Your task to perform on an android device: set an alarm Image 0: 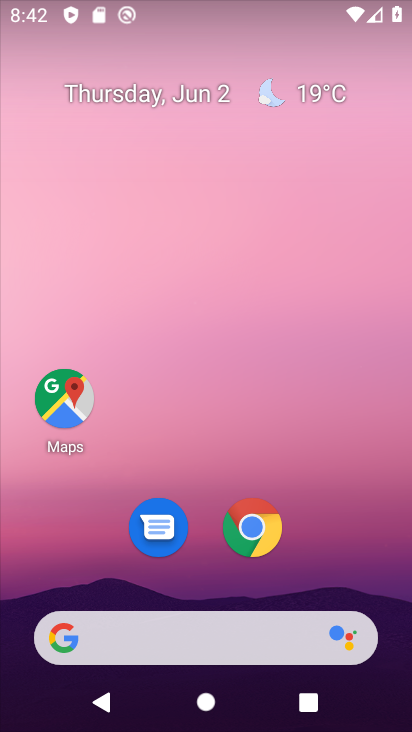
Step 0: drag from (375, 604) to (278, 110)
Your task to perform on an android device: set an alarm Image 1: 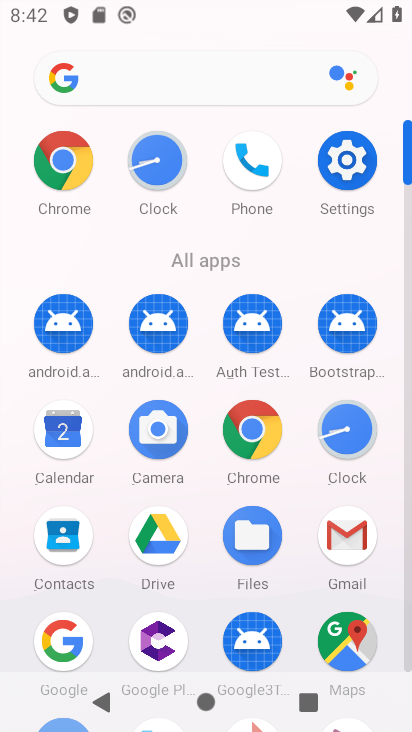
Step 1: click (177, 161)
Your task to perform on an android device: set an alarm Image 2: 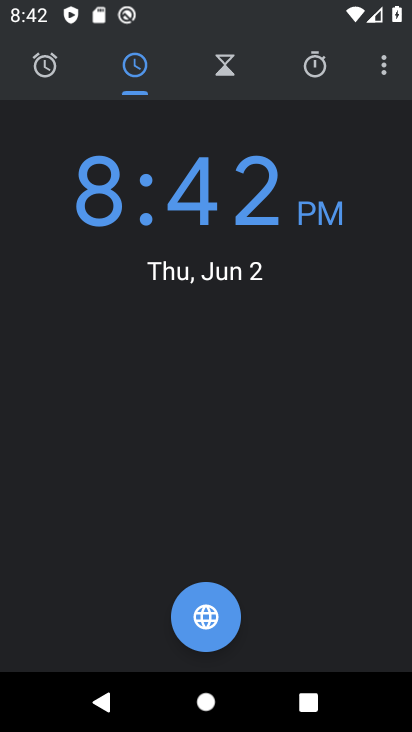
Step 2: click (43, 79)
Your task to perform on an android device: set an alarm Image 3: 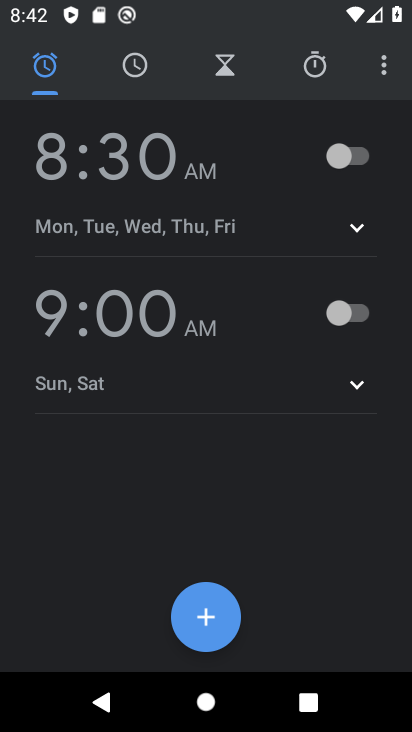
Step 3: click (208, 626)
Your task to perform on an android device: set an alarm Image 4: 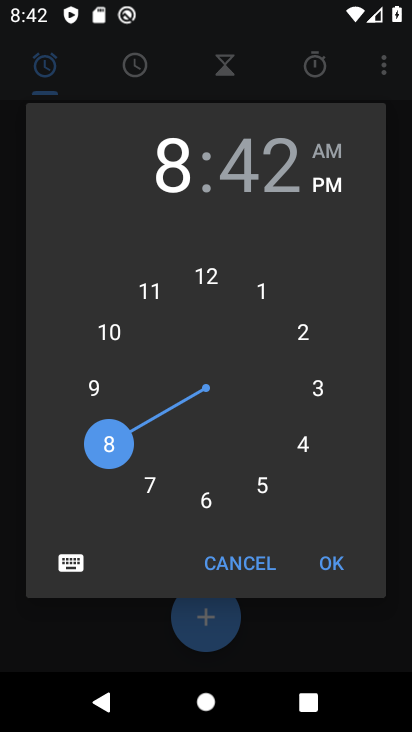
Step 4: click (327, 580)
Your task to perform on an android device: set an alarm Image 5: 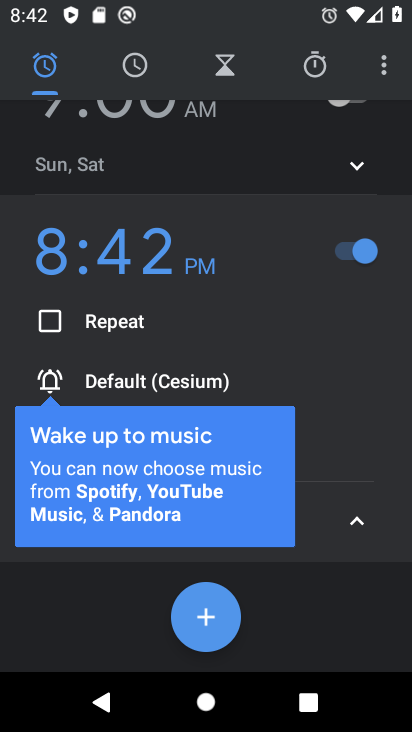
Step 5: task complete